Your task to perform on an android device: turn on javascript in the chrome app Image 0: 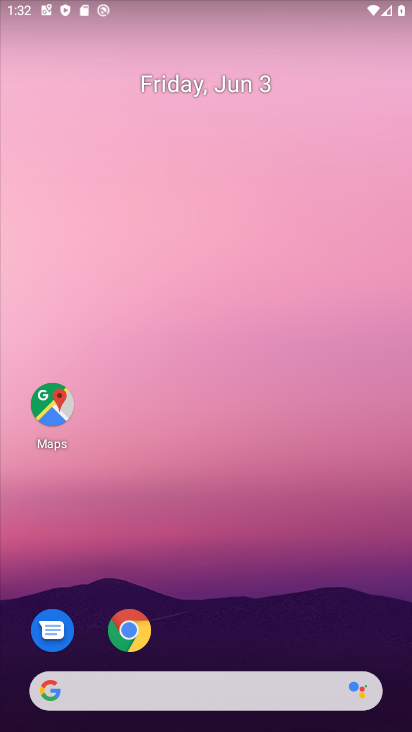
Step 0: click (128, 632)
Your task to perform on an android device: turn on javascript in the chrome app Image 1: 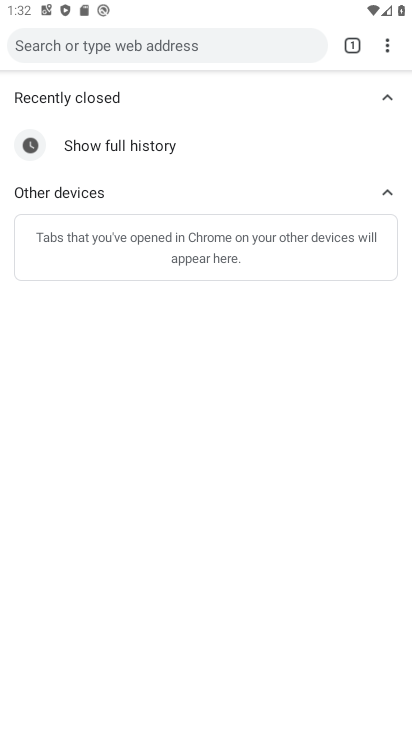
Step 1: click (387, 51)
Your task to perform on an android device: turn on javascript in the chrome app Image 2: 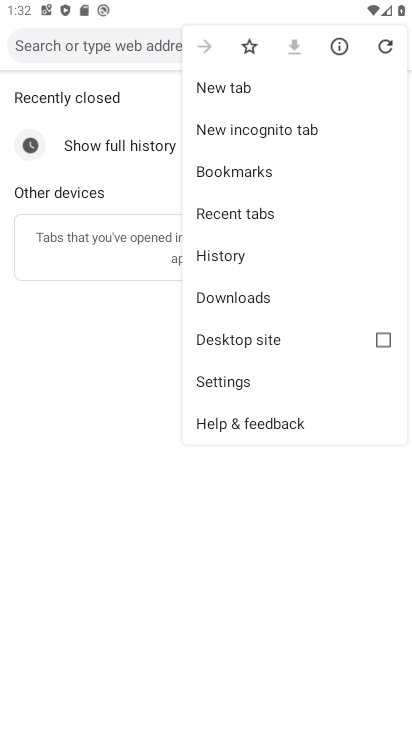
Step 2: click (238, 379)
Your task to perform on an android device: turn on javascript in the chrome app Image 3: 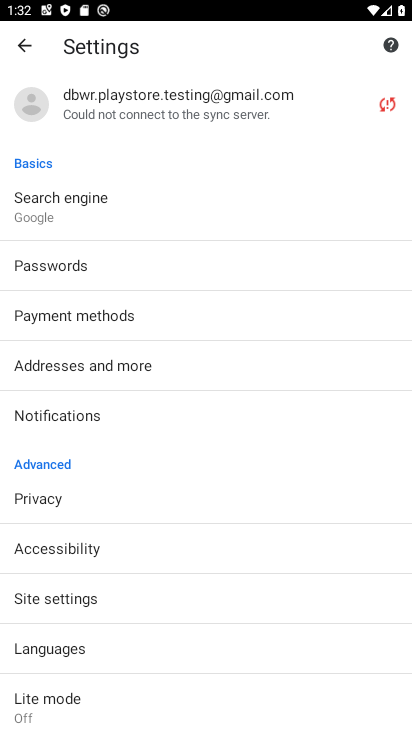
Step 3: click (75, 592)
Your task to perform on an android device: turn on javascript in the chrome app Image 4: 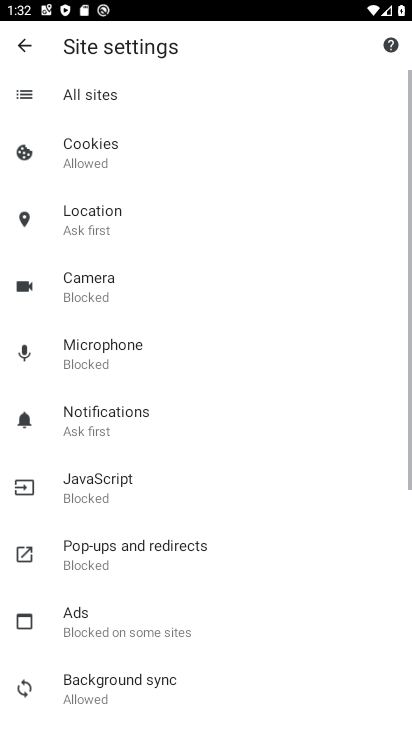
Step 4: click (108, 488)
Your task to perform on an android device: turn on javascript in the chrome app Image 5: 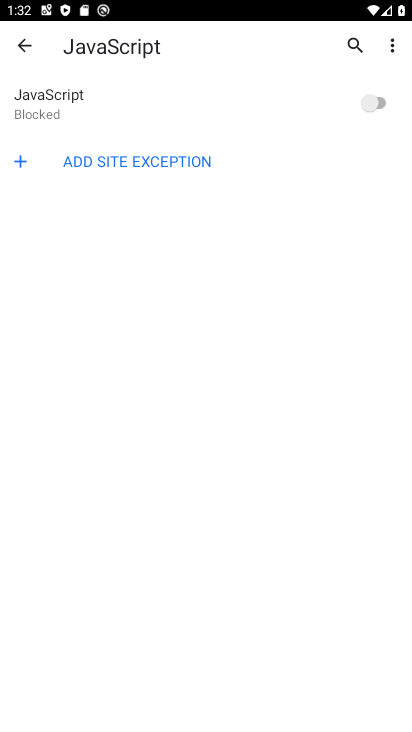
Step 5: click (381, 104)
Your task to perform on an android device: turn on javascript in the chrome app Image 6: 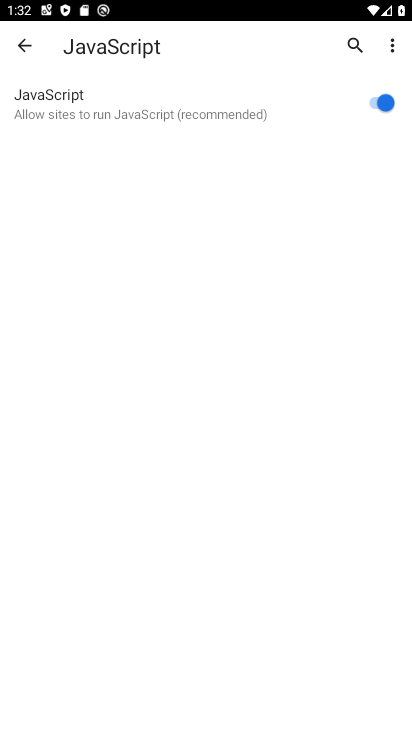
Step 6: task complete